Your task to perform on an android device: toggle priority inbox in the gmail app Image 0: 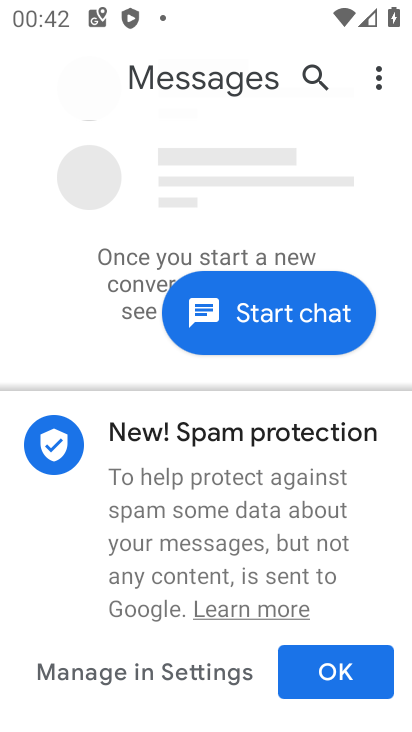
Step 0: press home button
Your task to perform on an android device: toggle priority inbox in the gmail app Image 1: 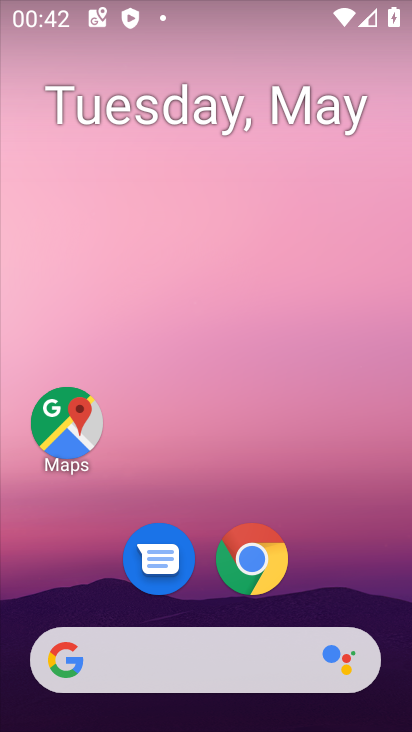
Step 1: drag from (331, 604) to (333, 176)
Your task to perform on an android device: toggle priority inbox in the gmail app Image 2: 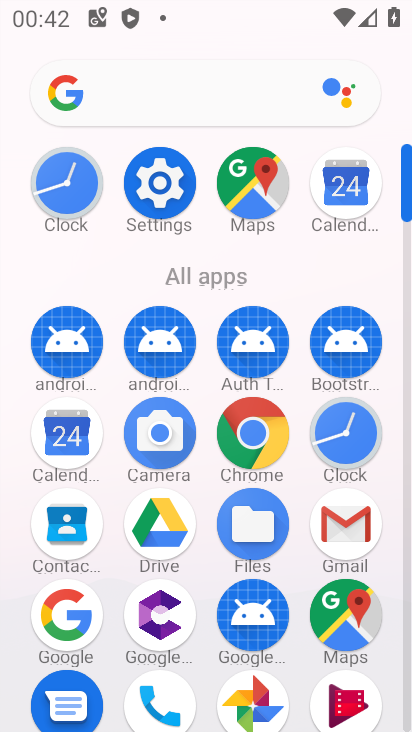
Step 2: click (339, 527)
Your task to perform on an android device: toggle priority inbox in the gmail app Image 3: 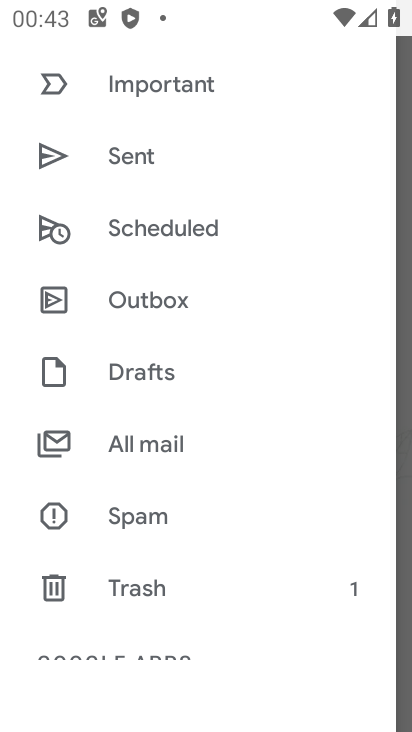
Step 3: task complete